Your task to perform on an android device: open app "Walmart Shopping & Grocery" Image 0: 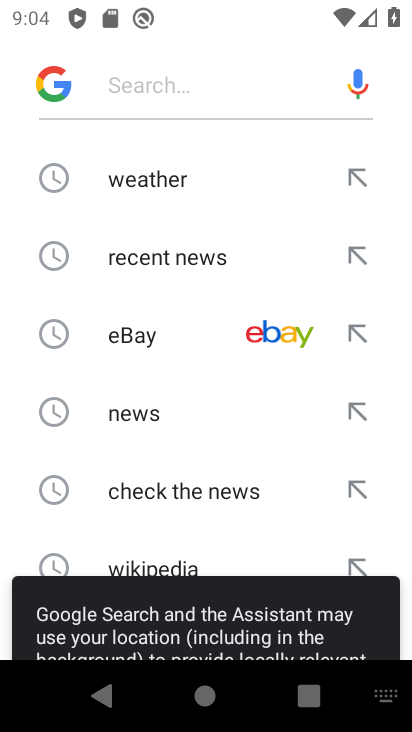
Step 0: press home button
Your task to perform on an android device: open app "Walmart Shopping & Grocery" Image 1: 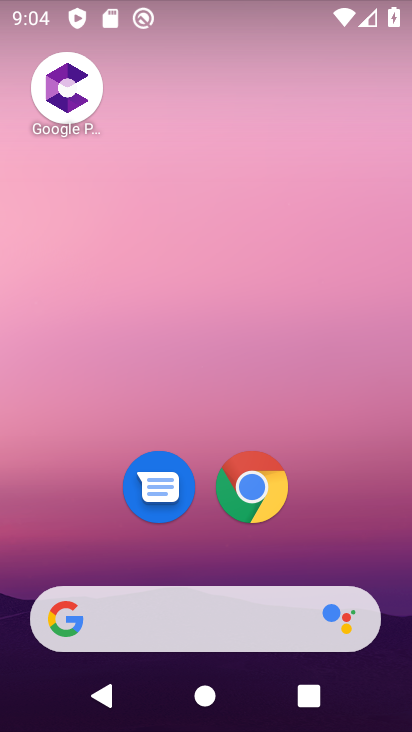
Step 1: drag from (173, 366) to (30, 9)
Your task to perform on an android device: open app "Walmart Shopping & Grocery" Image 2: 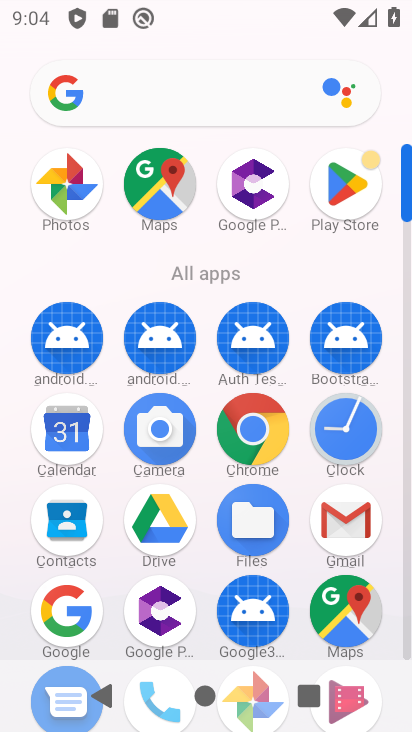
Step 2: click (346, 207)
Your task to perform on an android device: open app "Walmart Shopping & Grocery" Image 3: 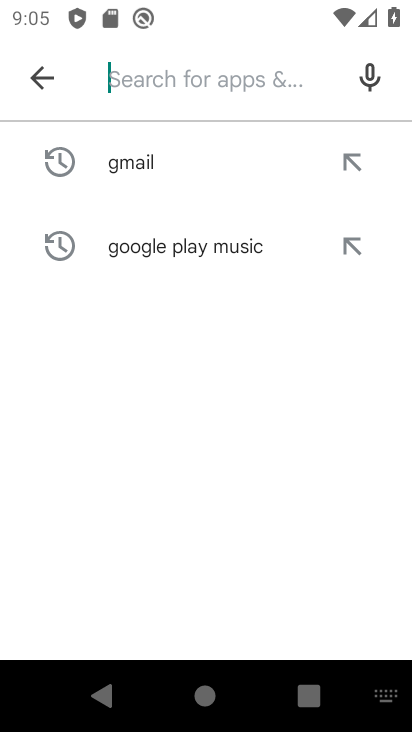
Step 3: type "Walmart Shopping & grocery"
Your task to perform on an android device: open app "Walmart Shopping & Grocery" Image 4: 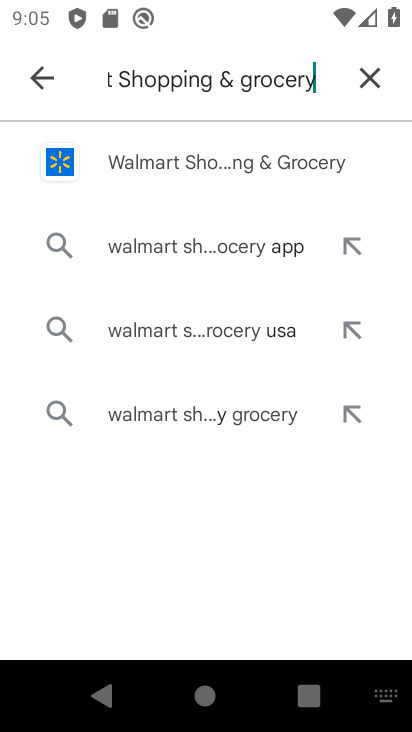
Step 4: click (248, 156)
Your task to perform on an android device: open app "Walmart Shopping & Grocery" Image 5: 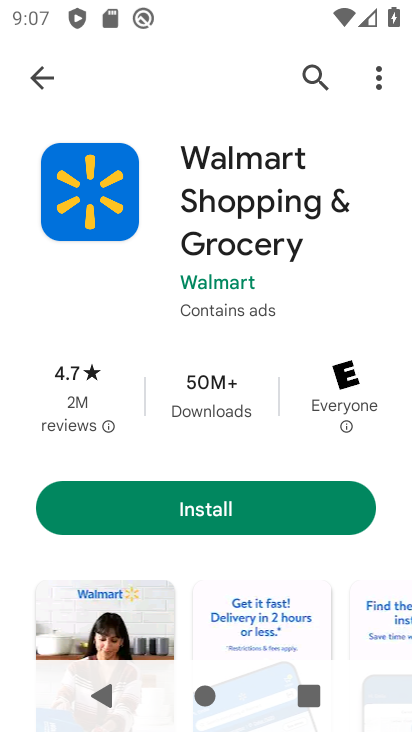
Step 5: task complete